Your task to perform on an android device: Open Google Chrome Image 0: 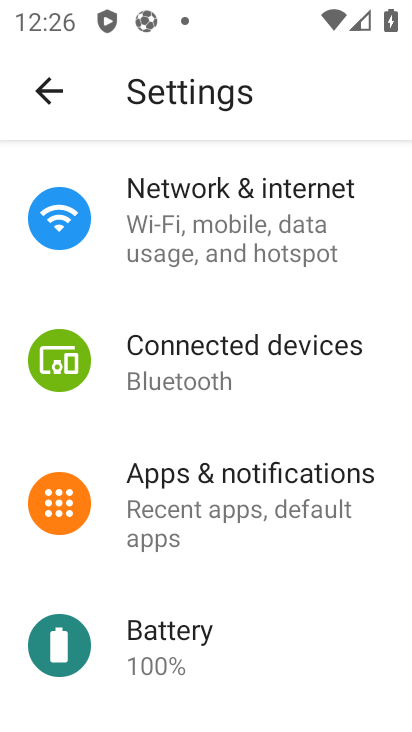
Step 0: press home button
Your task to perform on an android device: Open Google Chrome Image 1: 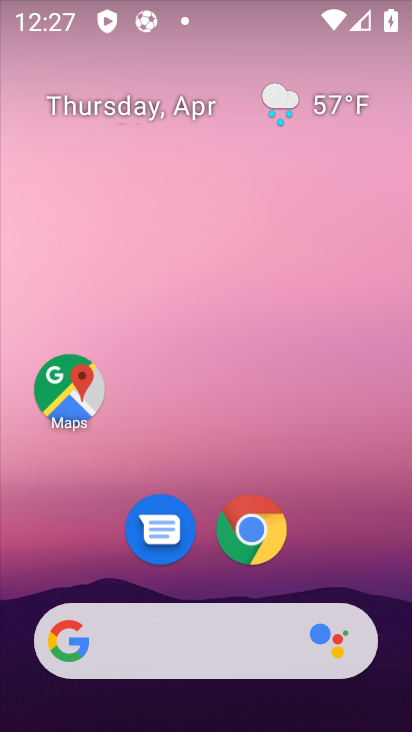
Step 1: click (241, 520)
Your task to perform on an android device: Open Google Chrome Image 2: 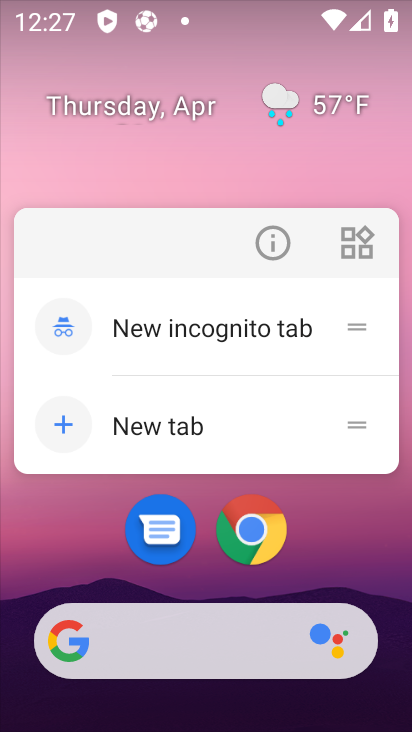
Step 2: click (274, 557)
Your task to perform on an android device: Open Google Chrome Image 3: 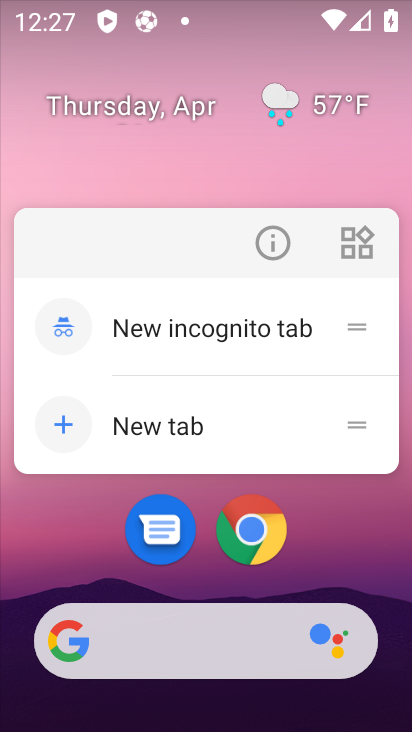
Step 3: click (274, 557)
Your task to perform on an android device: Open Google Chrome Image 4: 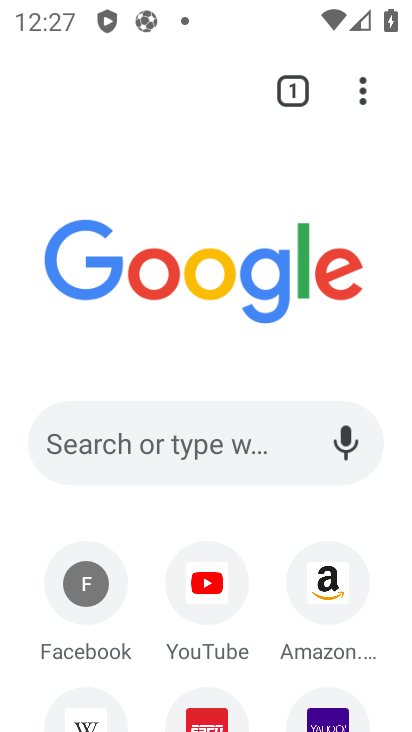
Step 4: task complete